Your task to perform on an android device: Do I have any events tomorrow? Image 0: 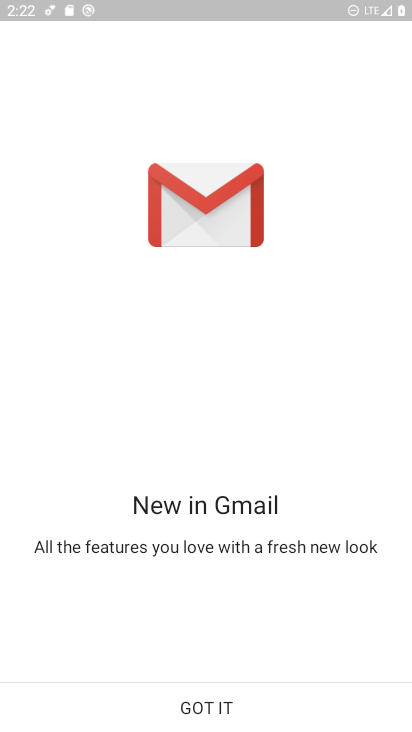
Step 0: press home button
Your task to perform on an android device: Do I have any events tomorrow? Image 1: 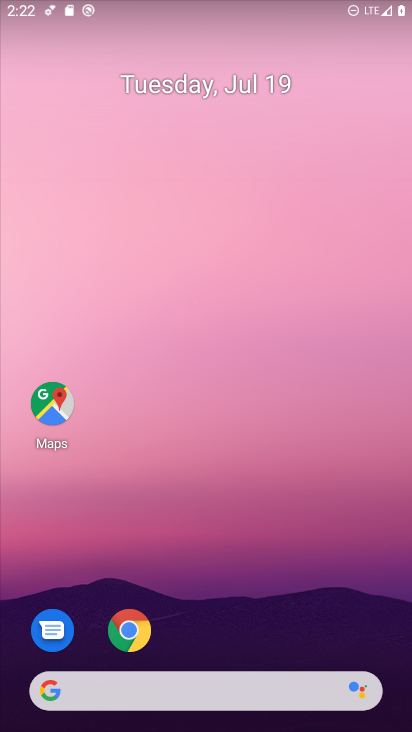
Step 1: drag from (343, 613) to (339, 131)
Your task to perform on an android device: Do I have any events tomorrow? Image 2: 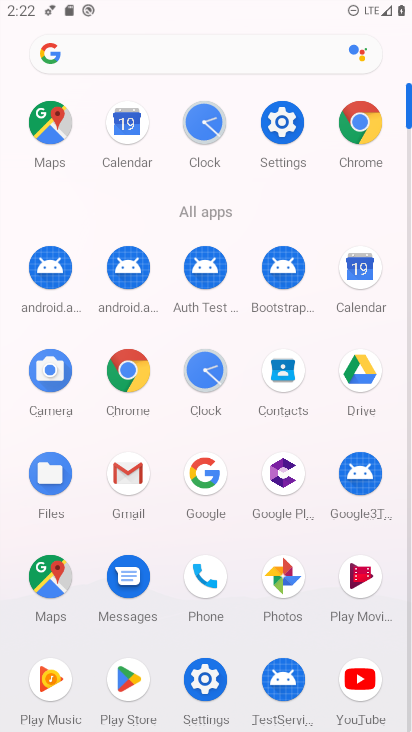
Step 2: click (362, 270)
Your task to perform on an android device: Do I have any events tomorrow? Image 3: 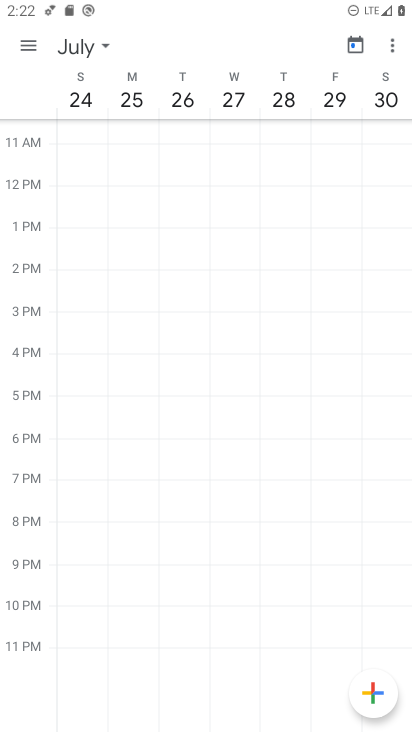
Step 3: click (27, 48)
Your task to perform on an android device: Do I have any events tomorrow? Image 4: 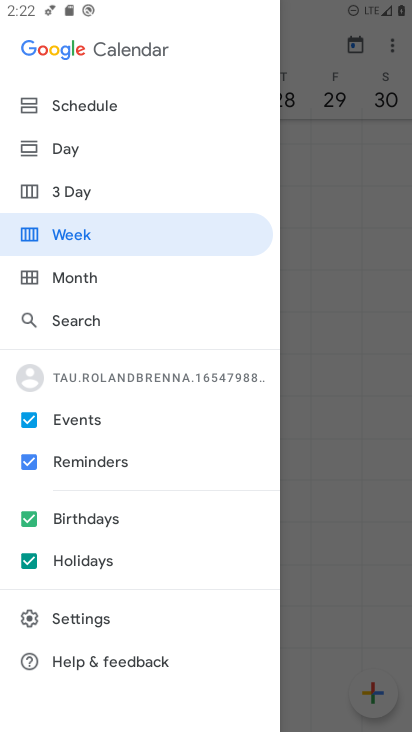
Step 4: click (65, 146)
Your task to perform on an android device: Do I have any events tomorrow? Image 5: 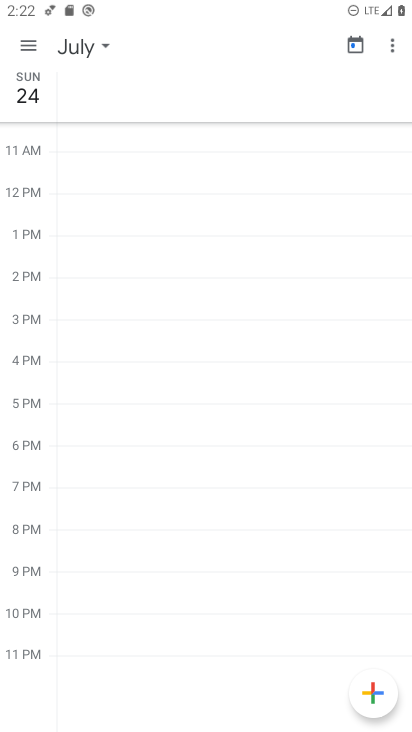
Step 5: click (102, 43)
Your task to perform on an android device: Do I have any events tomorrow? Image 6: 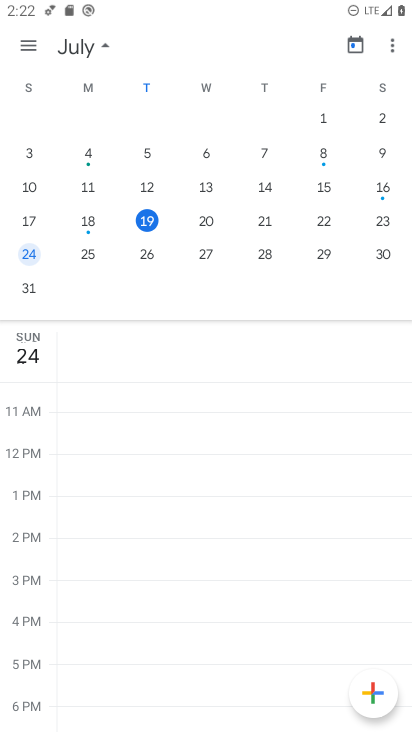
Step 6: click (201, 218)
Your task to perform on an android device: Do I have any events tomorrow? Image 7: 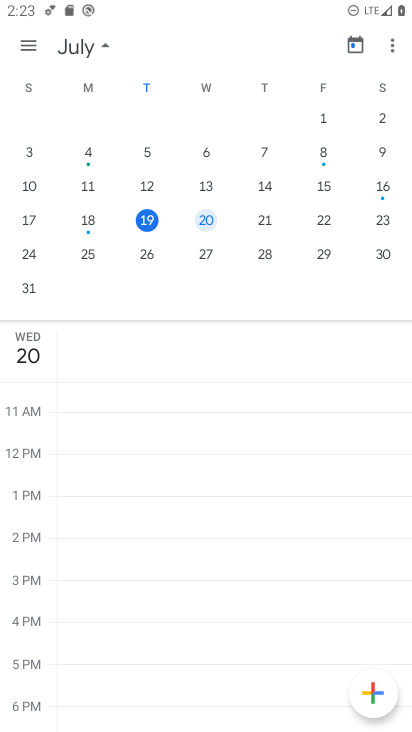
Step 7: task complete